Your task to perform on an android device: turn off smart reply in the gmail app Image 0: 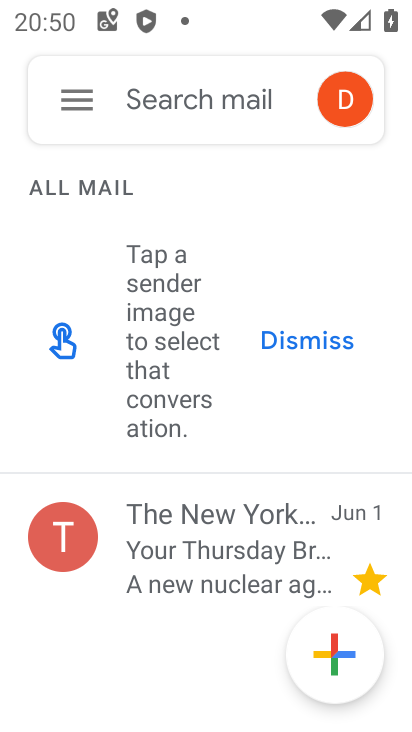
Step 0: click (85, 91)
Your task to perform on an android device: turn off smart reply in the gmail app Image 1: 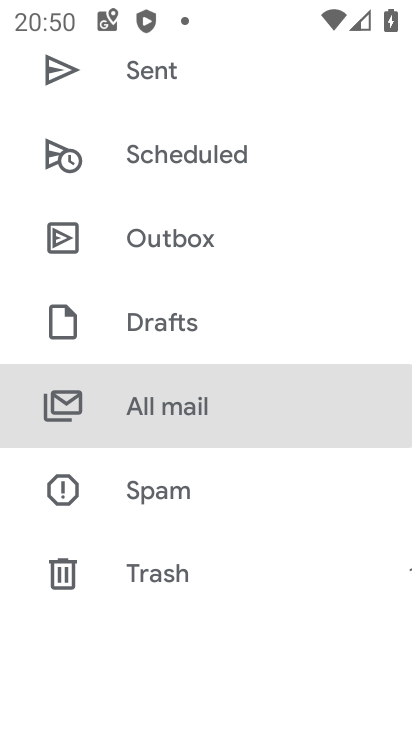
Step 1: drag from (251, 554) to (226, 193)
Your task to perform on an android device: turn off smart reply in the gmail app Image 2: 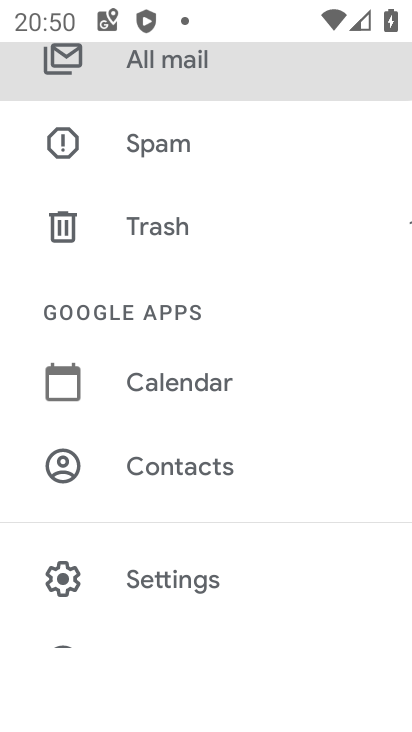
Step 2: click (164, 570)
Your task to perform on an android device: turn off smart reply in the gmail app Image 3: 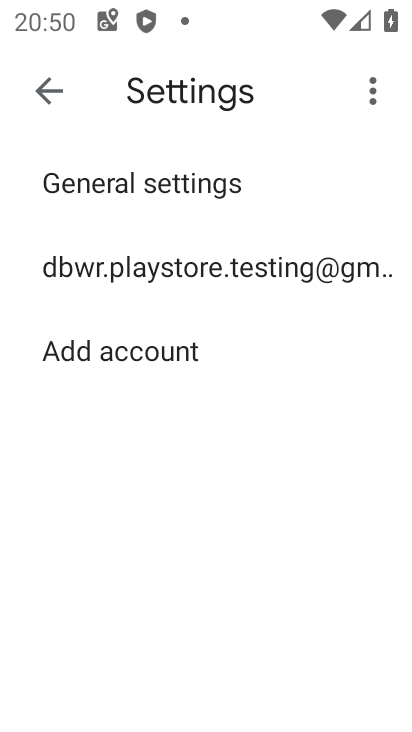
Step 3: click (136, 266)
Your task to perform on an android device: turn off smart reply in the gmail app Image 4: 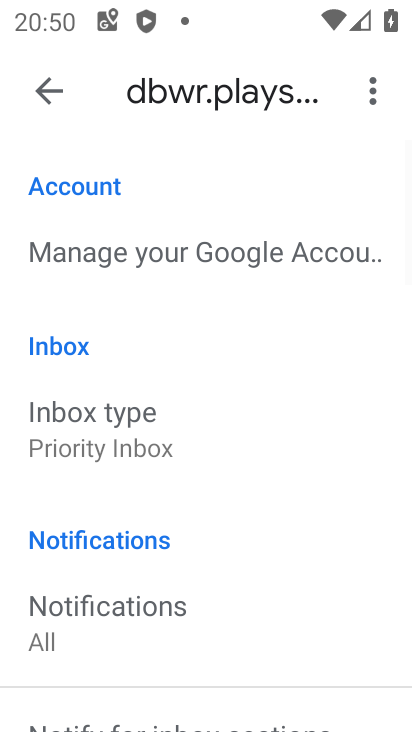
Step 4: drag from (268, 556) to (235, 184)
Your task to perform on an android device: turn off smart reply in the gmail app Image 5: 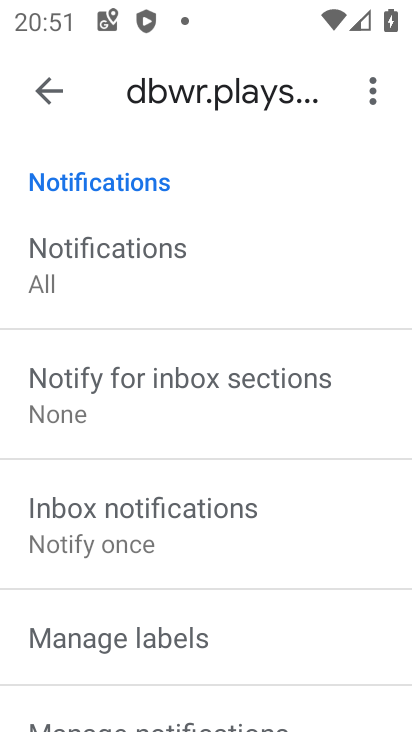
Step 5: drag from (260, 579) to (217, 239)
Your task to perform on an android device: turn off smart reply in the gmail app Image 6: 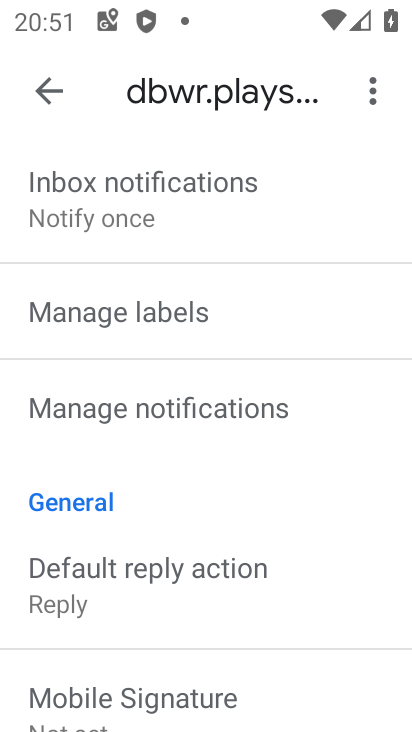
Step 6: drag from (250, 623) to (238, 232)
Your task to perform on an android device: turn off smart reply in the gmail app Image 7: 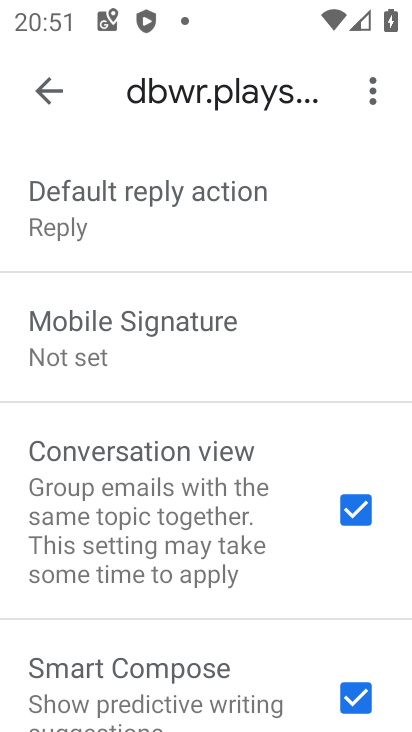
Step 7: drag from (283, 629) to (259, 309)
Your task to perform on an android device: turn off smart reply in the gmail app Image 8: 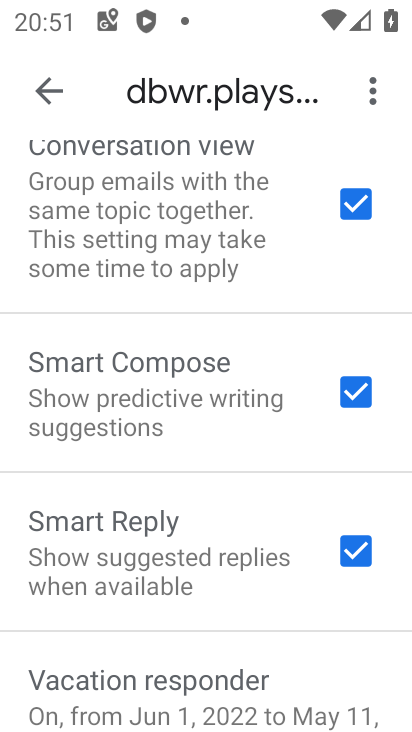
Step 8: click (358, 551)
Your task to perform on an android device: turn off smart reply in the gmail app Image 9: 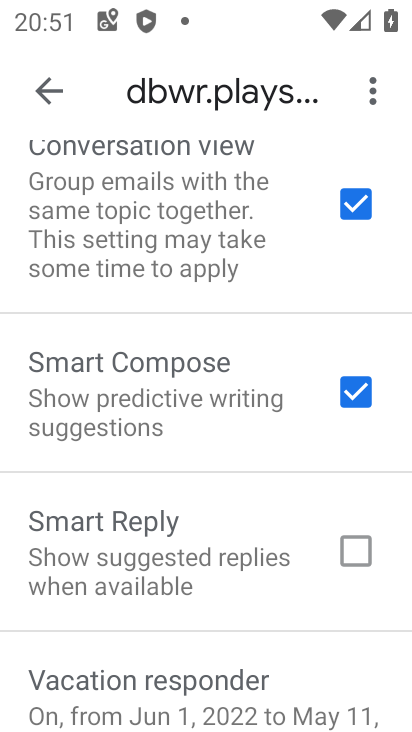
Step 9: task complete